Your task to perform on an android device: change alarm snooze length Image 0: 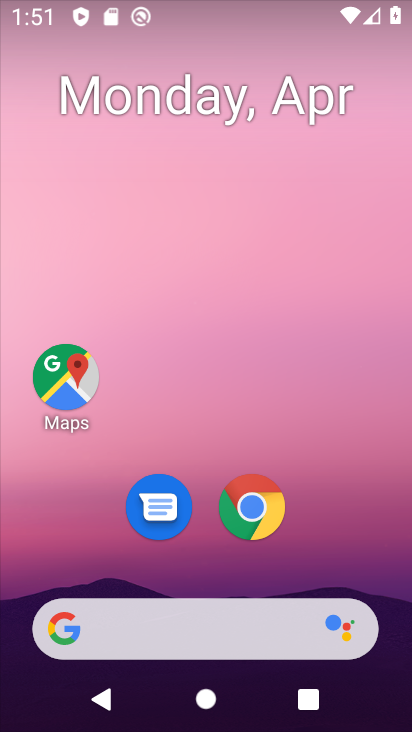
Step 0: drag from (391, 621) to (325, 40)
Your task to perform on an android device: change alarm snooze length Image 1: 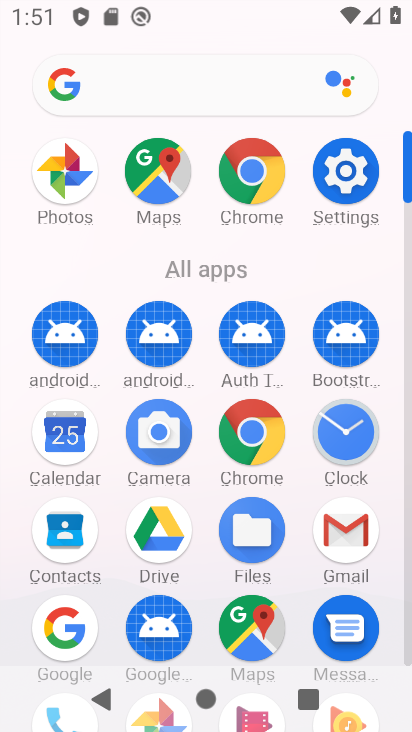
Step 1: click (406, 637)
Your task to perform on an android device: change alarm snooze length Image 2: 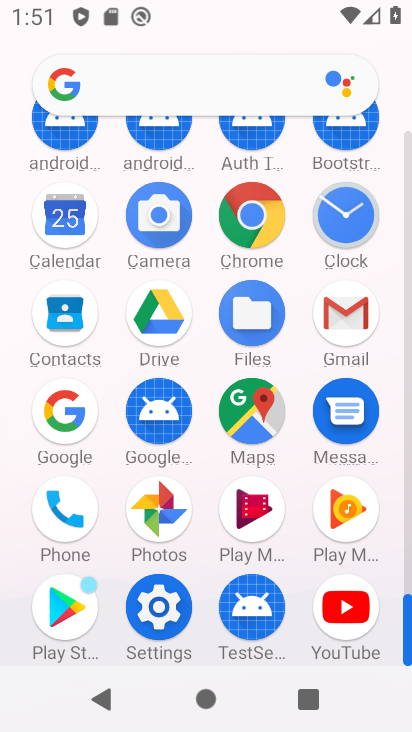
Step 2: click (346, 215)
Your task to perform on an android device: change alarm snooze length Image 3: 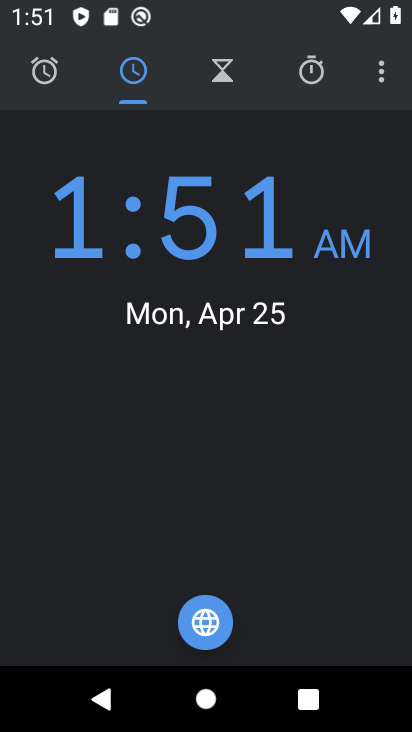
Step 3: click (379, 80)
Your task to perform on an android device: change alarm snooze length Image 4: 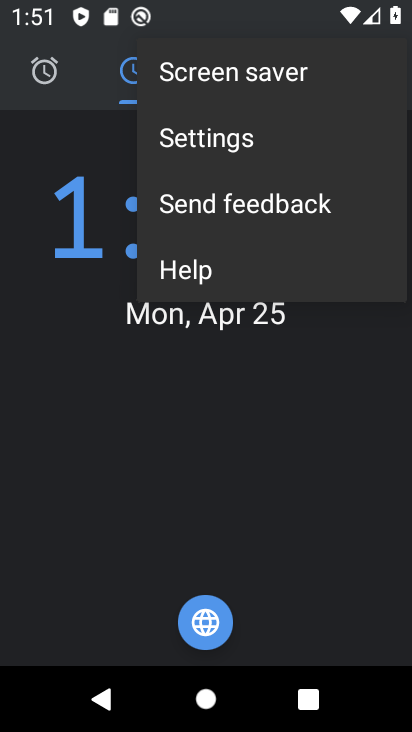
Step 4: click (187, 136)
Your task to perform on an android device: change alarm snooze length Image 5: 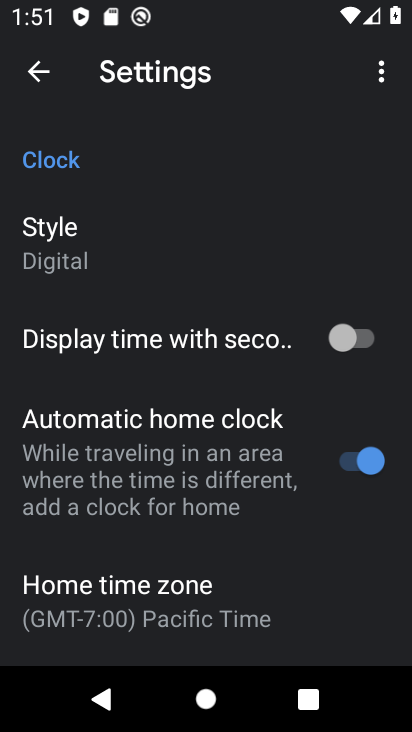
Step 5: drag from (304, 563) to (283, 63)
Your task to perform on an android device: change alarm snooze length Image 6: 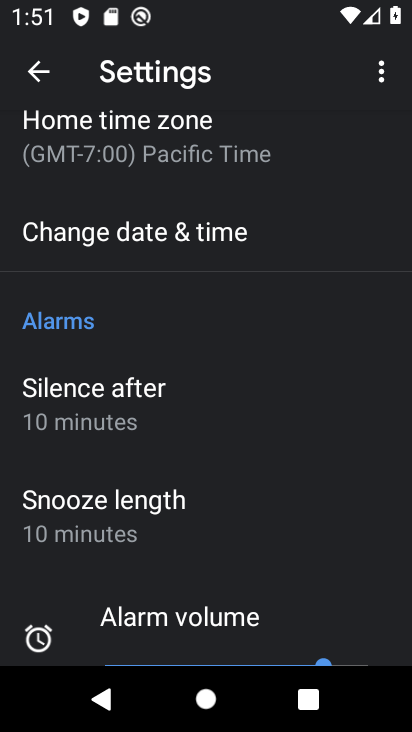
Step 6: click (72, 512)
Your task to perform on an android device: change alarm snooze length Image 7: 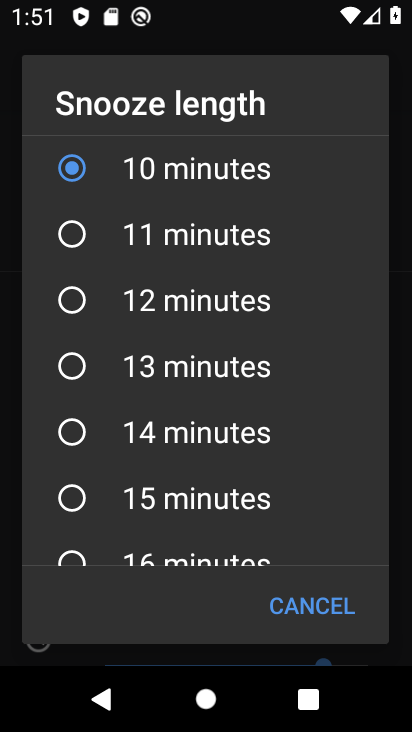
Step 7: click (73, 495)
Your task to perform on an android device: change alarm snooze length Image 8: 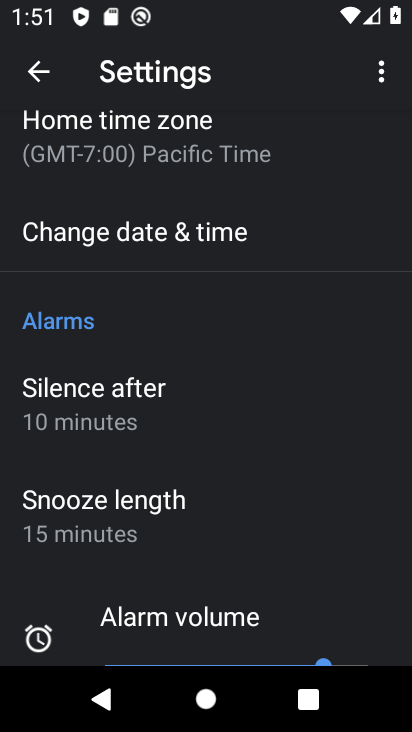
Step 8: task complete